Your task to perform on an android device: Open Amazon Image 0: 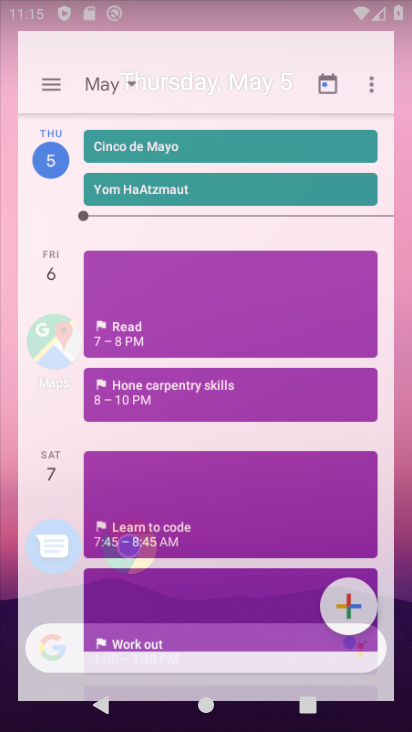
Step 0: drag from (227, 609) to (168, 31)
Your task to perform on an android device: Open Amazon Image 1: 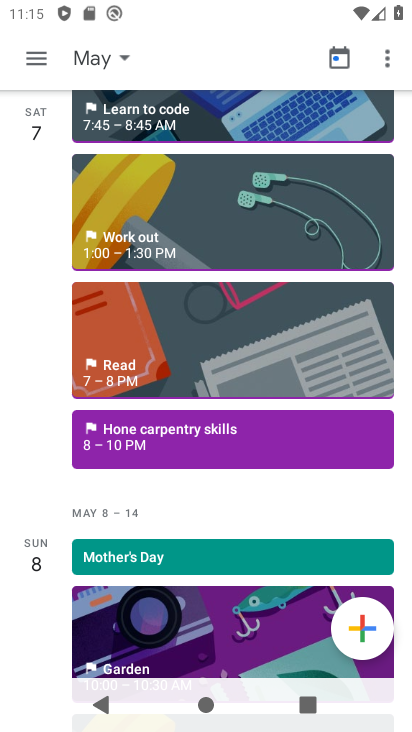
Step 1: press home button
Your task to perform on an android device: Open Amazon Image 2: 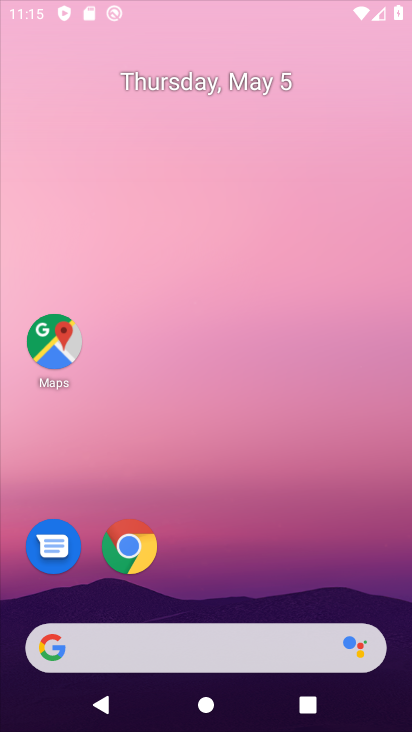
Step 2: press home button
Your task to perform on an android device: Open Amazon Image 3: 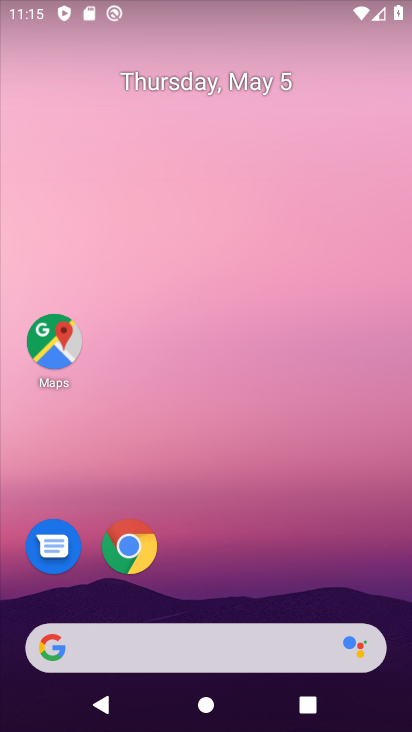
Step 3: press home button
Your task to perform on an android device: Open Amazon Image 4: 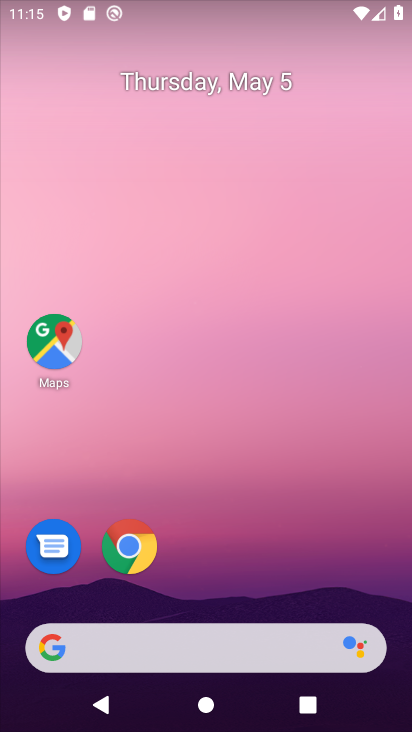
Step 4: press home button
Your task to perform on an android device: Open Amazon Image 5: 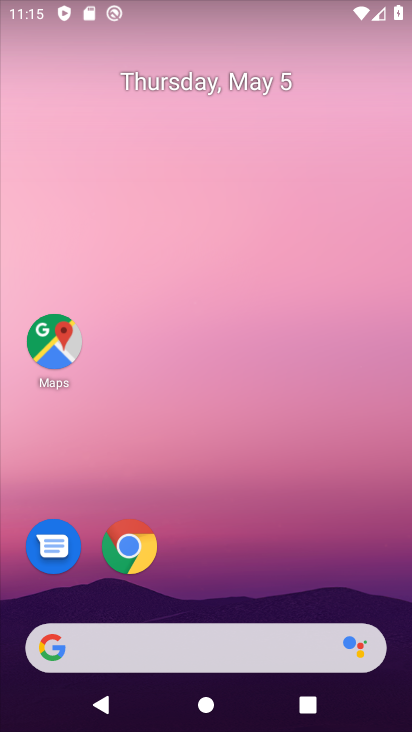
Step 5: press home button
Your task to perform on an android device: Open Amazon Image 6: 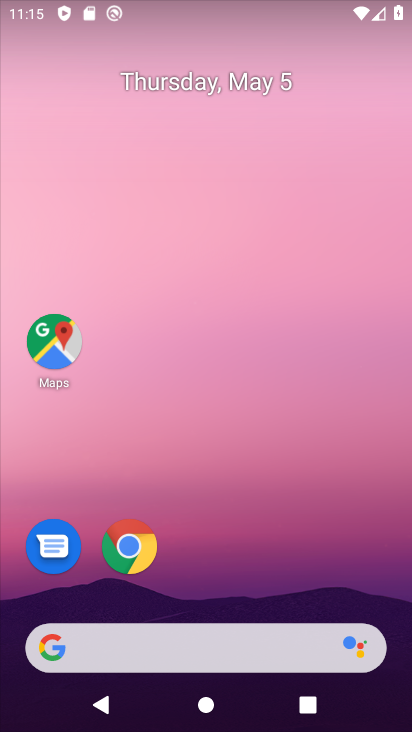
Step 6: press home button
Your task to perform on an android device: Open Amazon Image 7: 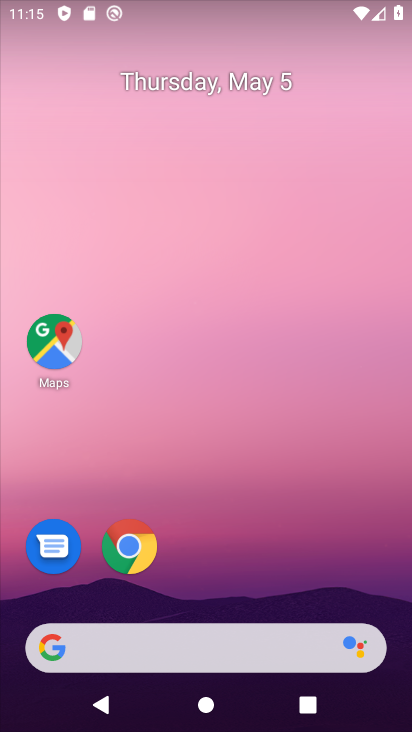
Step 7: drag from (206, 610) to (173, 197)
Your task to perform on an android device: Open Amazon Image 8: 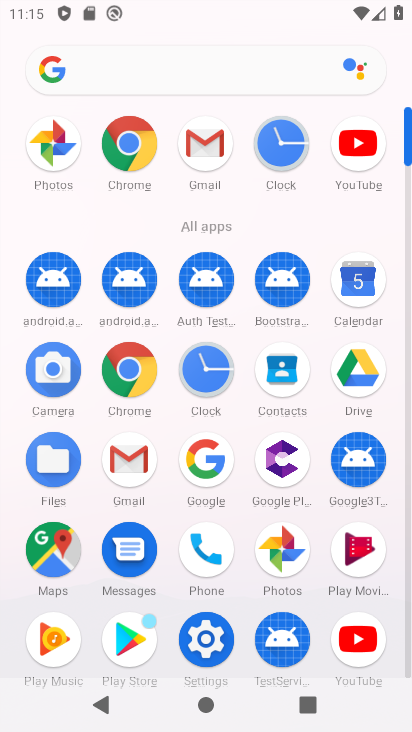
Step 8: click (124, 379)
Your task to perform on an android device: Open Amazon Image 9: 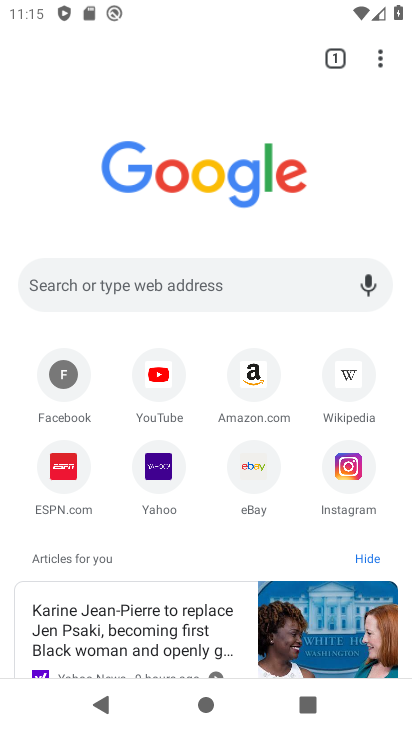
Step 9: click (259, 376)
Your task to perform on an android device: Open Amazon Image 10: 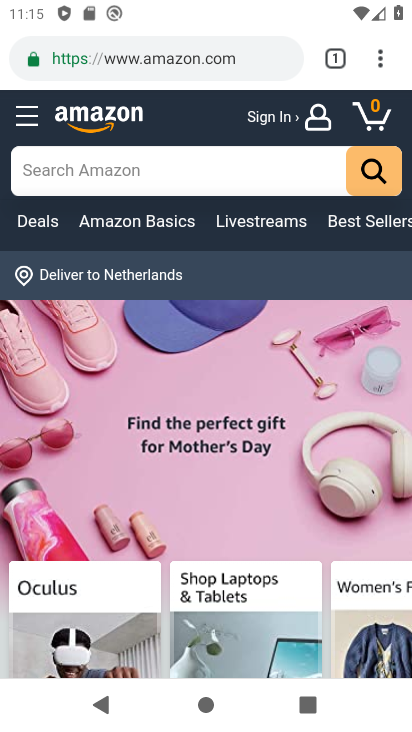
Step 10: task complete